Your task to perform on an android device: Open Google Chrome Image 0: 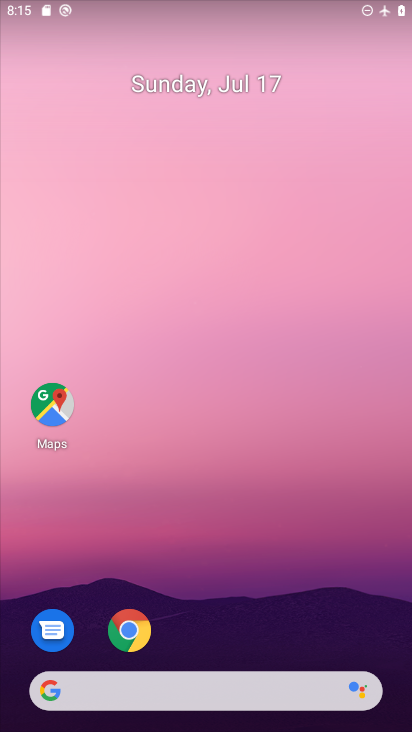
Step 0: drag from (209, 649) to (231, 310)
Your task to perform on an android device: Open Google Chrome Image 1: 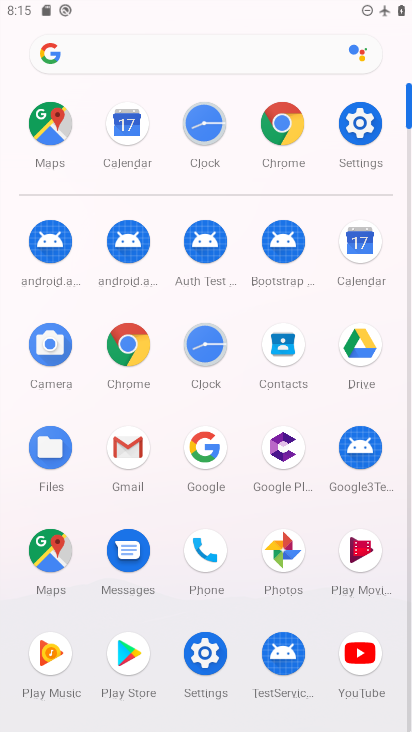
Step 1: click (125, 357)
Your task to perform on an android device: Open Google Chrome Image 2: 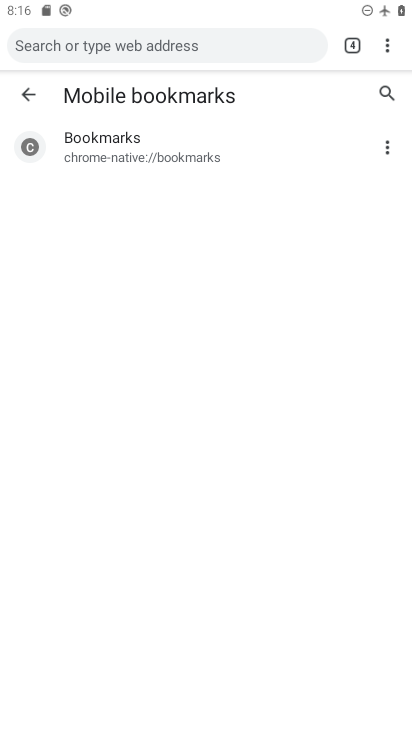
Step 2: task complete